Your task to perform on an android device: Open Chrome and go to the settings page Image 0: 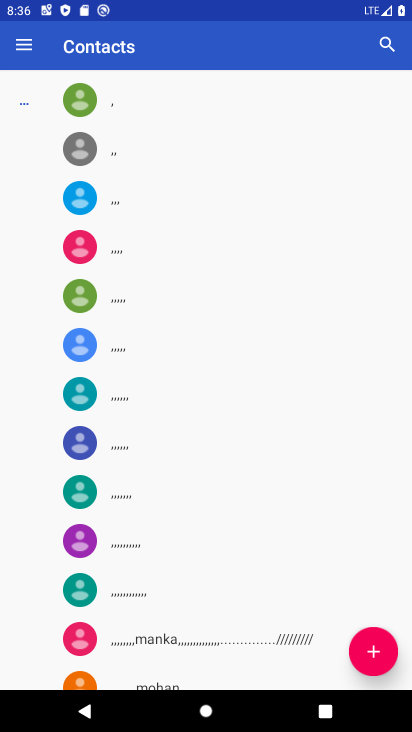
Step 0: press home button
Your task to perform on an android device: Open Chrome and go to the settings page Image 1: 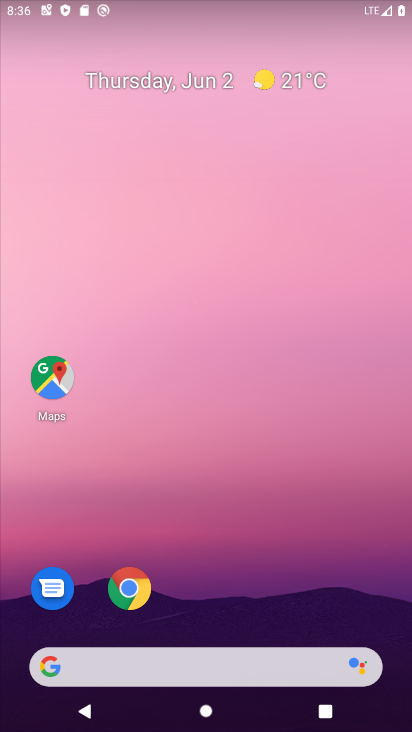
Step 1: drag from (193, 615) to (267, 351)
Your task to perform on an android device: Open Chrome and go to the settings page Image 2: 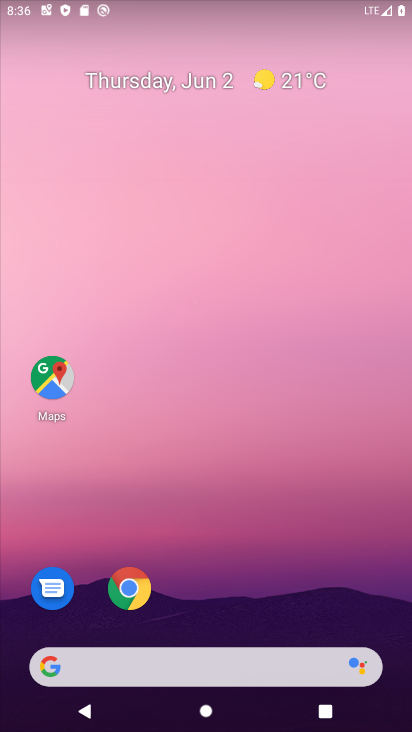
Step 2: drag from (251, 601) to (250, 230)
Your task to perform on an android device: Open Chrome and go to the settings page Image 3: 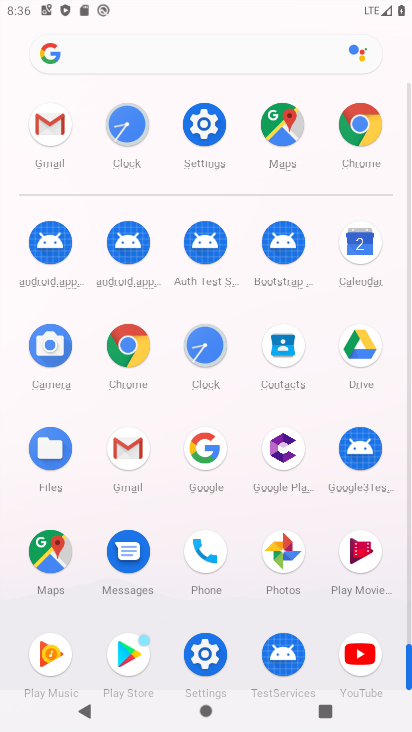
Step 3: click (372, 130)
Your task to perform on an android device: Open Chrome and go to the settings page Image 4: 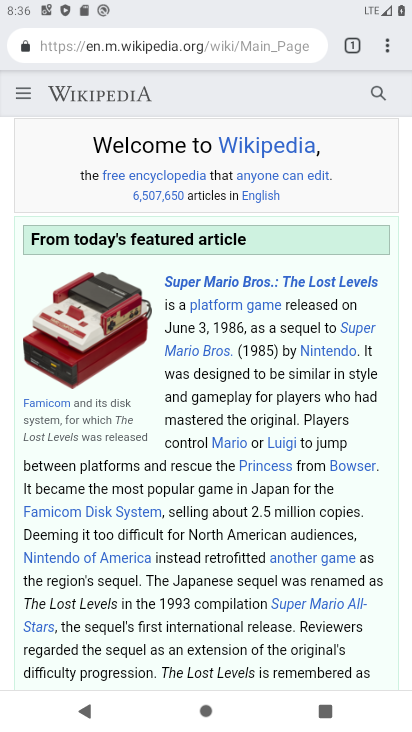
Step 4: click (384, 51)
Your task to perform on an android device: Open Chrome and go to the settings page Image 5: 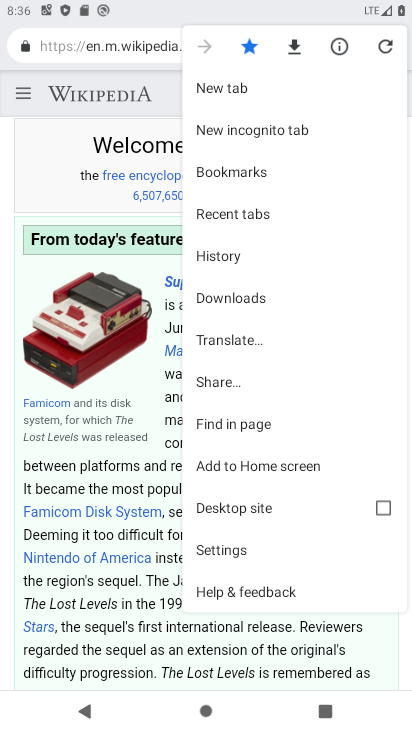
Step 5: click (241, 552)
Your task to perform on an android device: Open Chrome and go to the settings page Image 6: 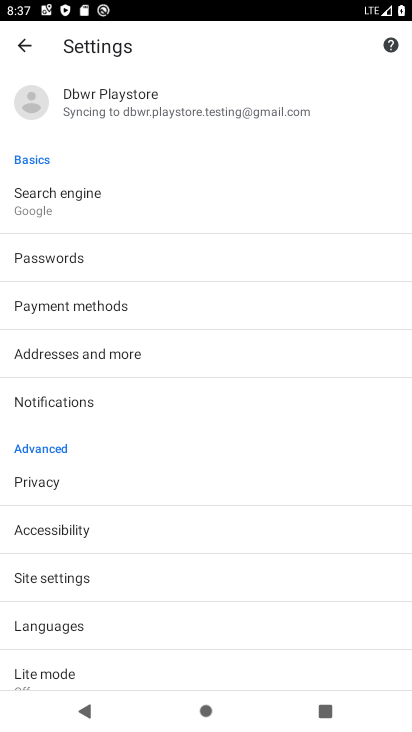
Step 6: click (103, 627)
Your task to perform on an android device: Open Chrome and go to the settings page Image 7: 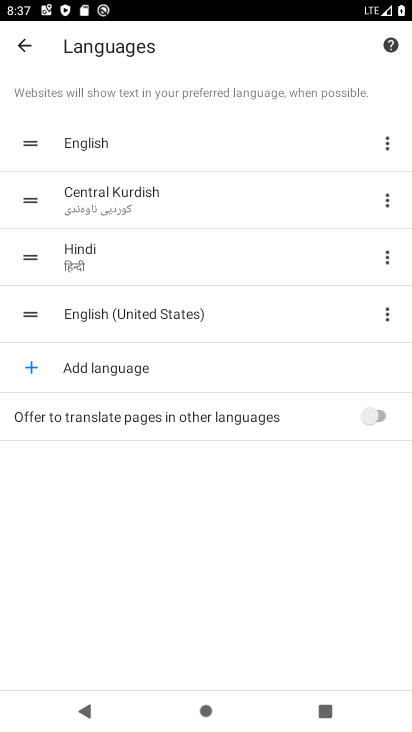
Step 7: task complete